Your task to perform on an android device: turn on location history Image 0: 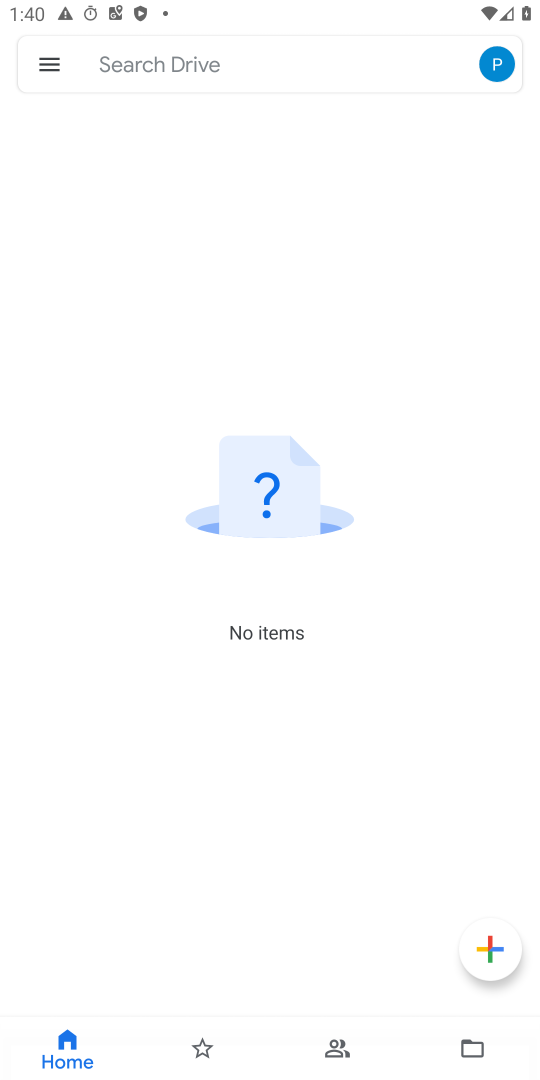
Step 0: press home button
Your task to perform on an android device: turn on location history Image 1: 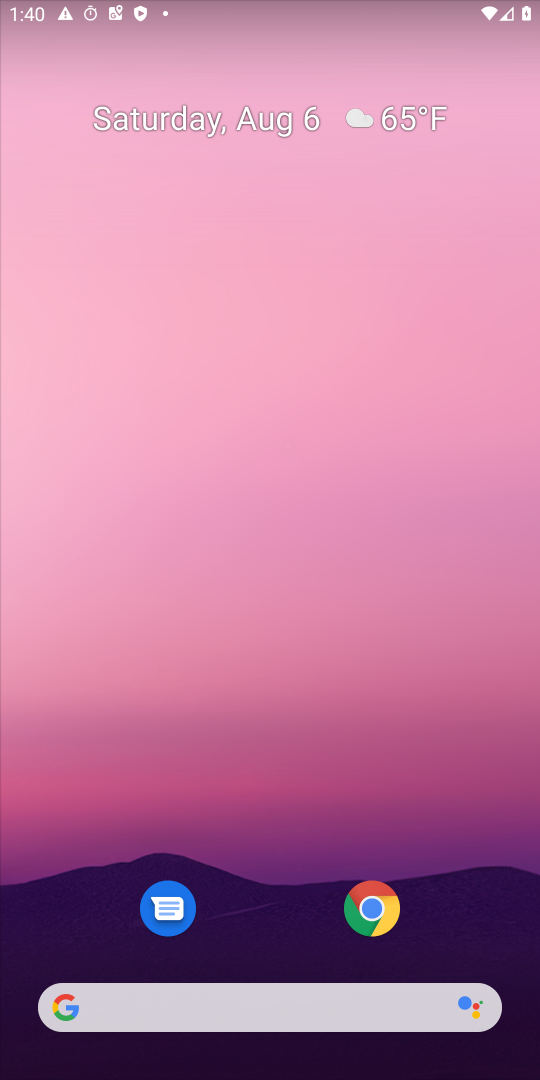
Step 1: drag from (257, 901) to (538, 309)
Your task to perform on an android device: turn on location history Image 2: 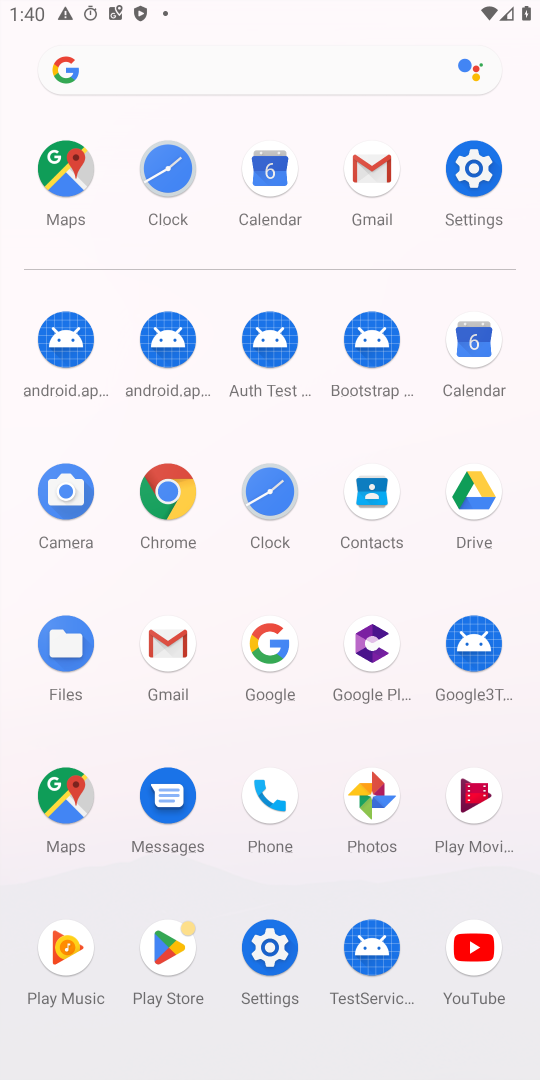
Step 2: click (473, 170)
Your task to perform on an android device: turn on location history Image 3: 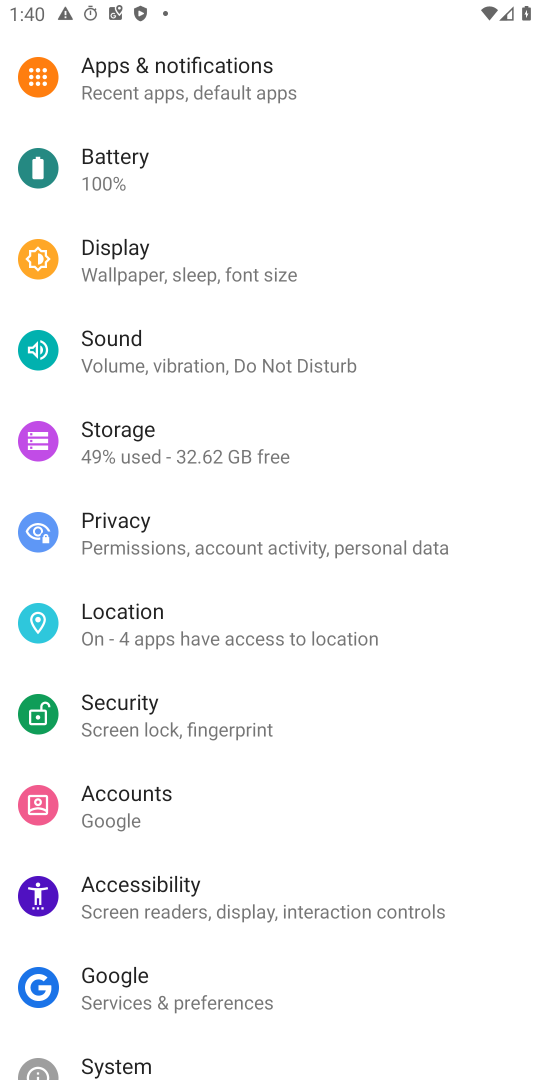
Step 3: click (196, 624)
Your task to perform on an android device: turn on location history Image 4: 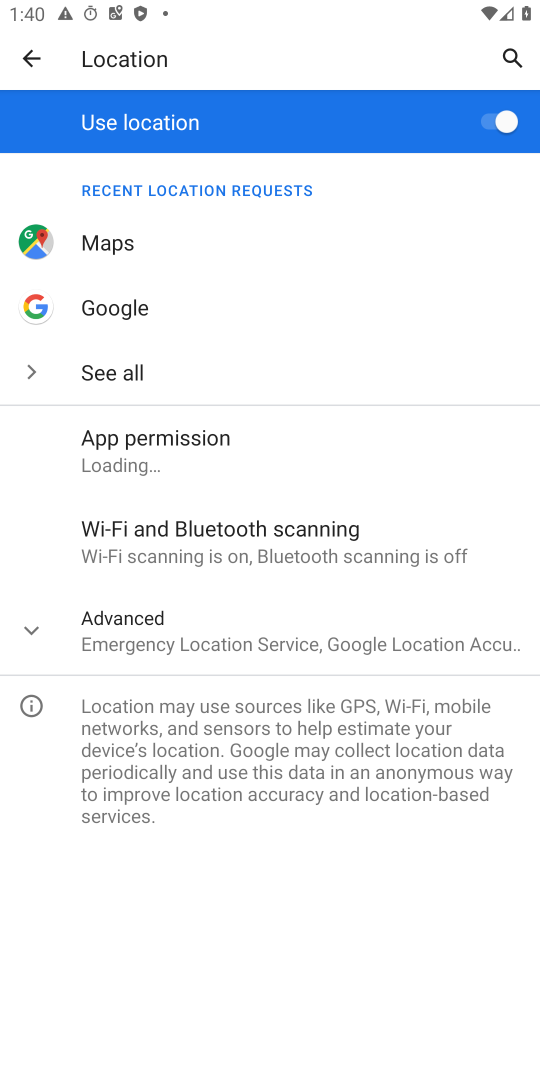
Step 4: click (176, 629)
Your task to perform on an android device: turn on location history Image 5: 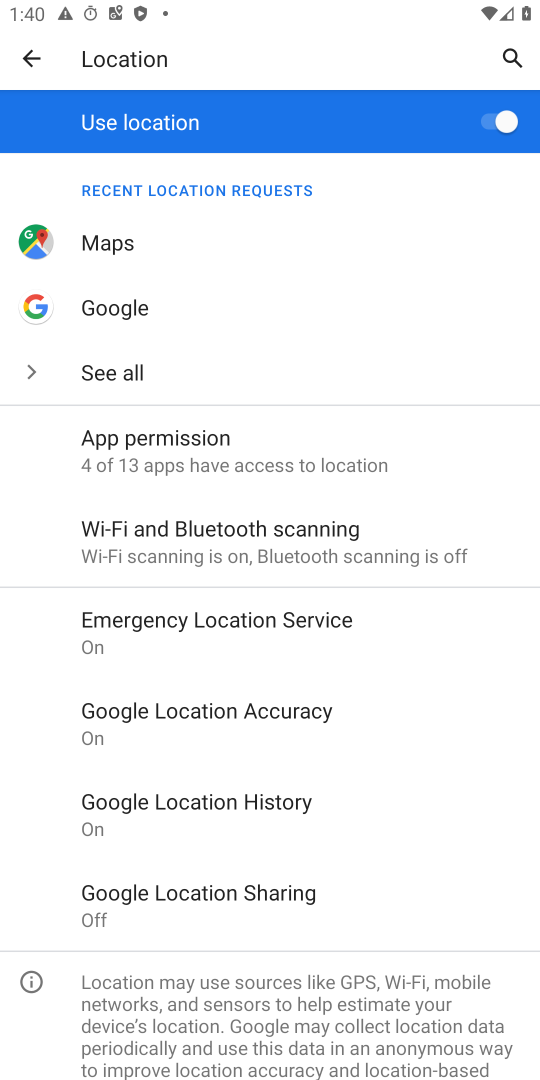
Step 5: click (192, 793)
Your task to perform on an android device: turn on location history Image 6: 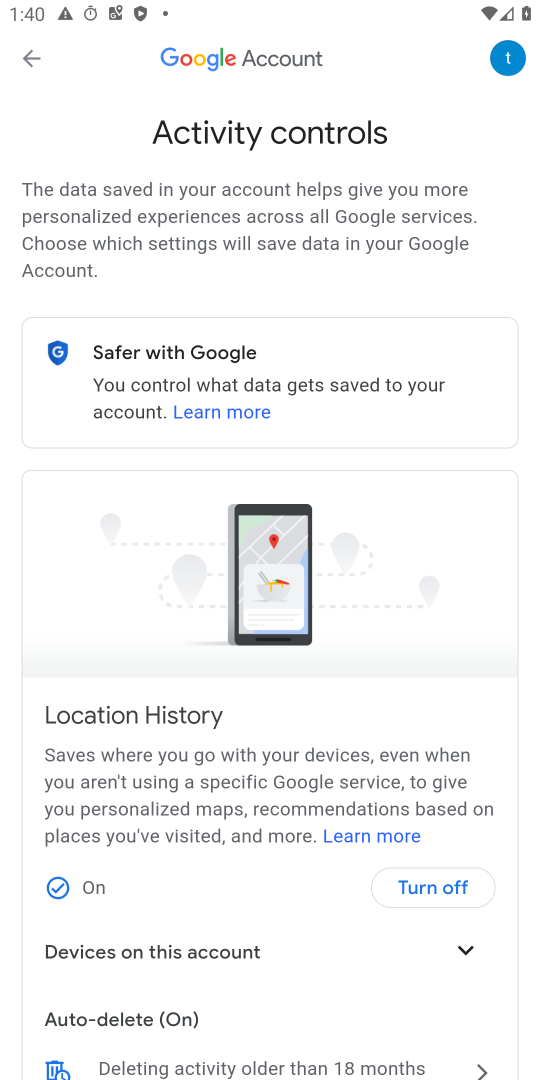
Step 6: task complete